Your task to perform on an android device: Show the shopping cart on target.com. Add "razer deathadder" to the cart on target.com Image 0: 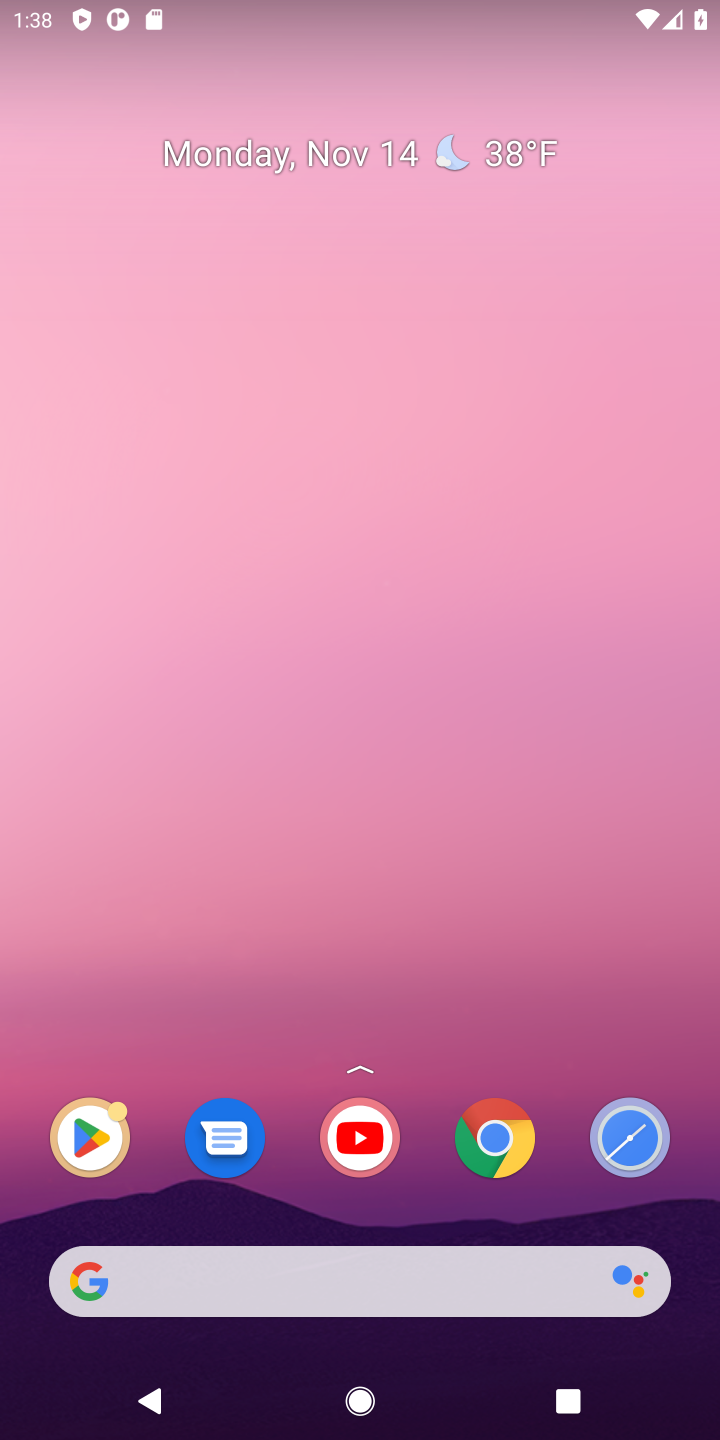
Step 0: click (513, 1136)
Your task to perform on an android device: Show the shopping cart on target.com. Add "razer deathadder" to the cart on target.com Image 1: 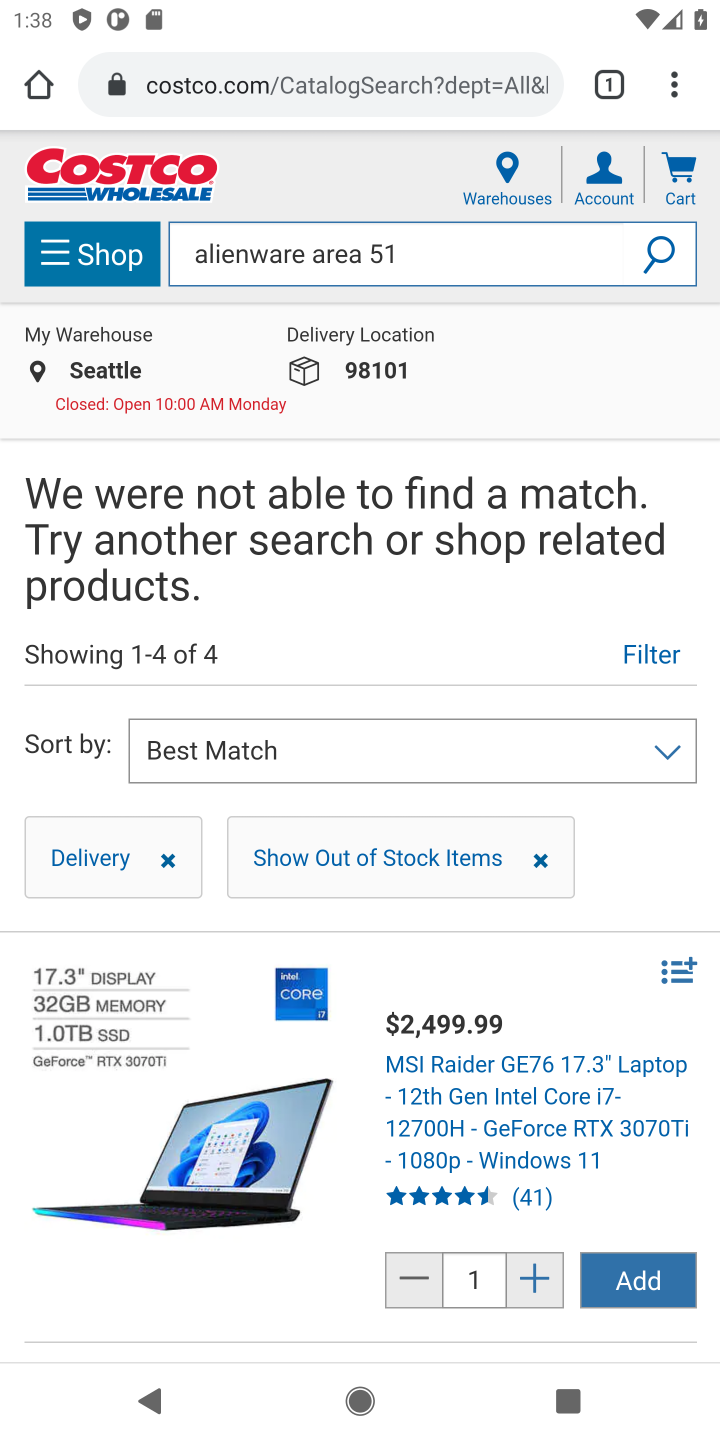
Step 1: click (332, 72)
Your task to perform on an android device: Show the shopping cart on target.com. Add "razer deathadder" to the cart on target.com Image 2: 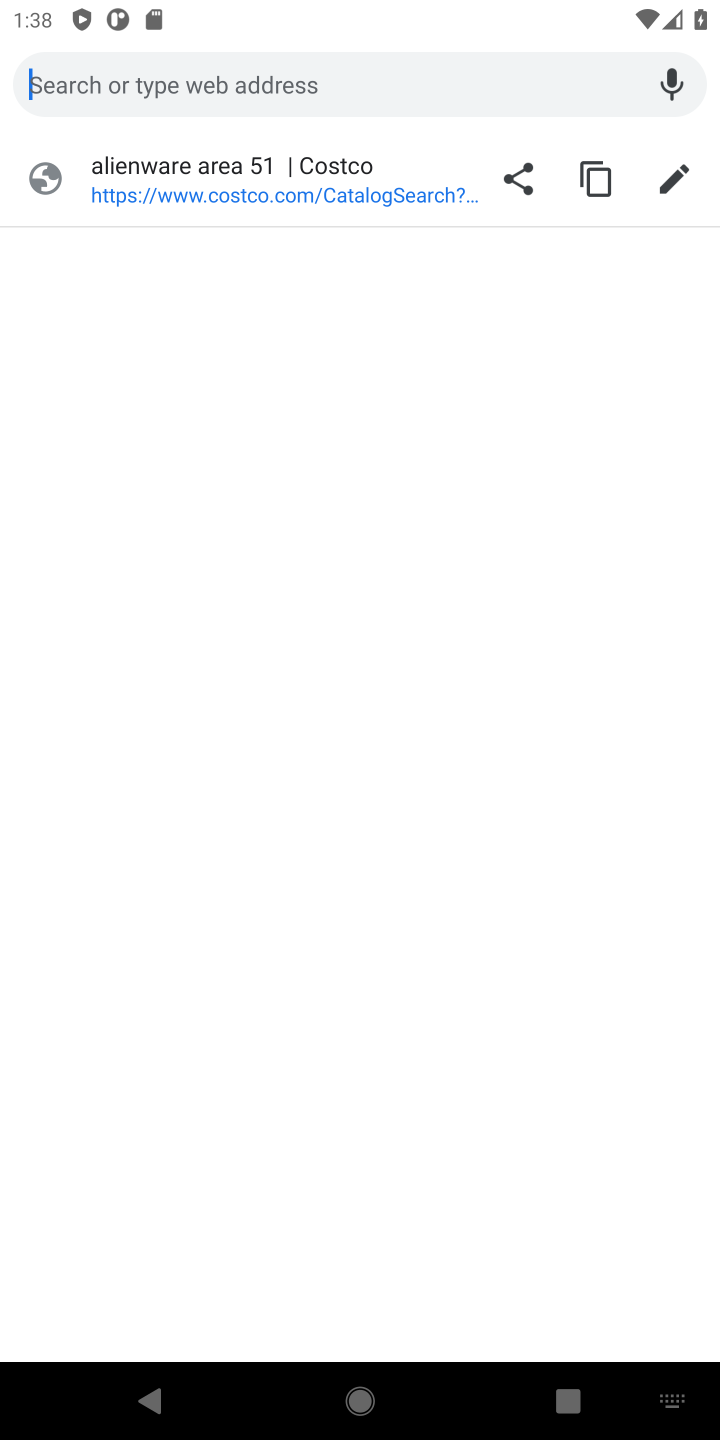
Step 2: press enter
Your task to perform on an android device: Show the shopping cart on target.com. Add "razer deathadder" to the cart on target.com Image 3: 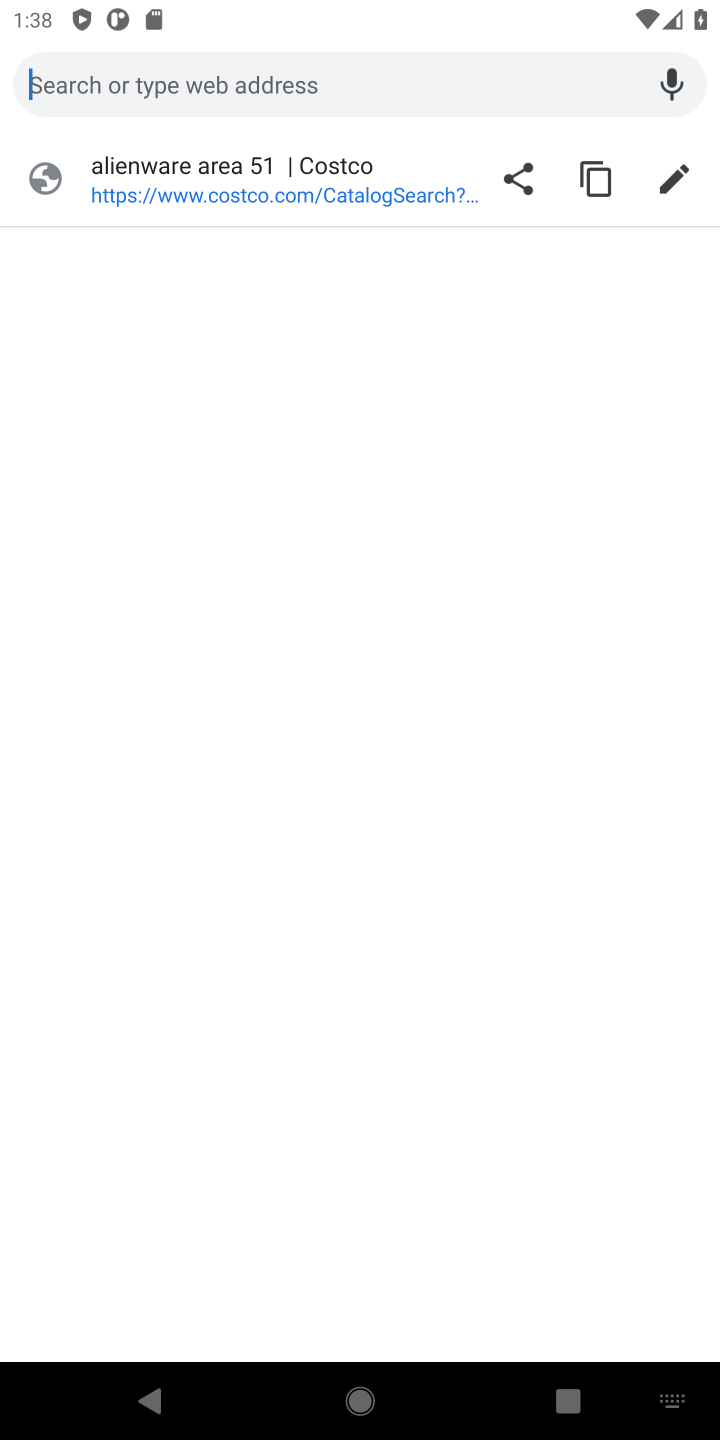
Step 3: type "target.com"
Your task to perform on an android device: Show the shopping cart on target.com. Add "razer deathadder" to the cart on target.com Image 4: 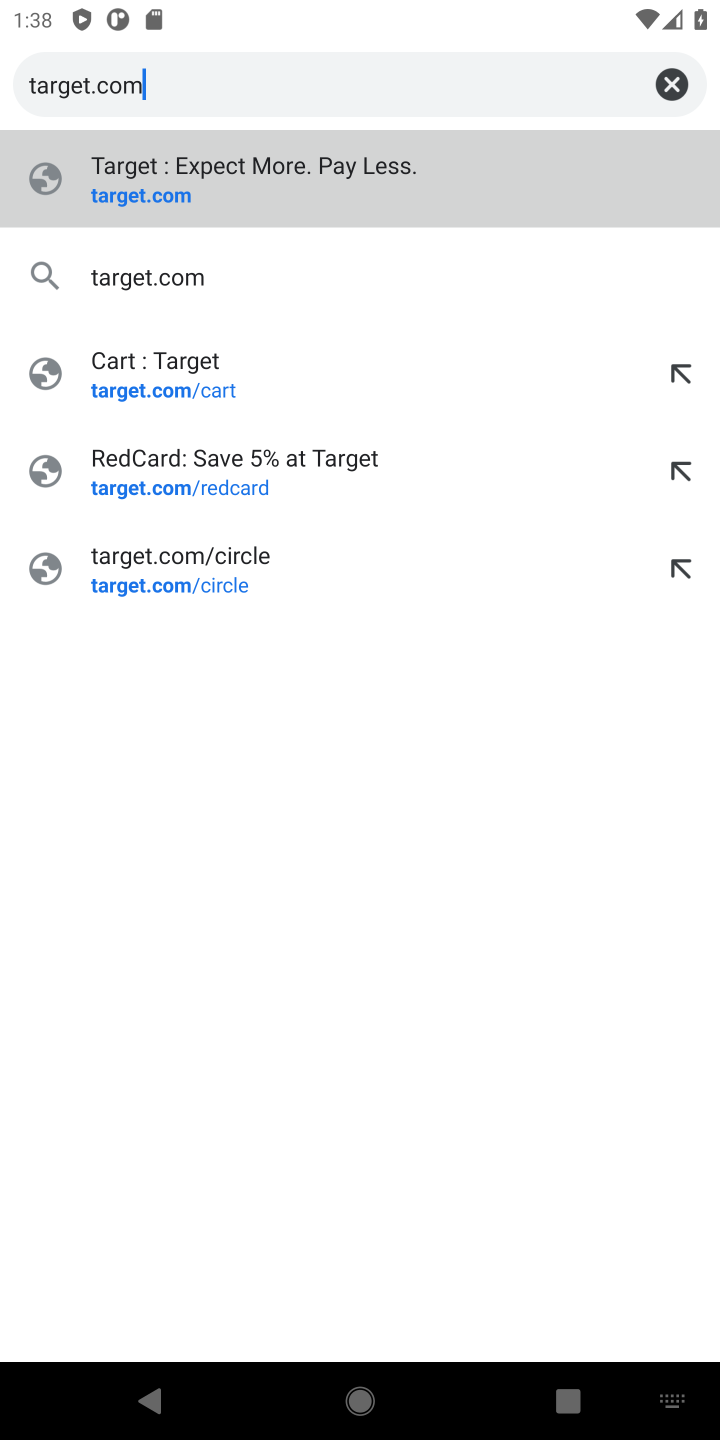
Step 4: click (174, 268)
Your task to perform on an android device: Show the shopping cart on target.com. Add "razer deathadder" to the cart on target.com Image 5: 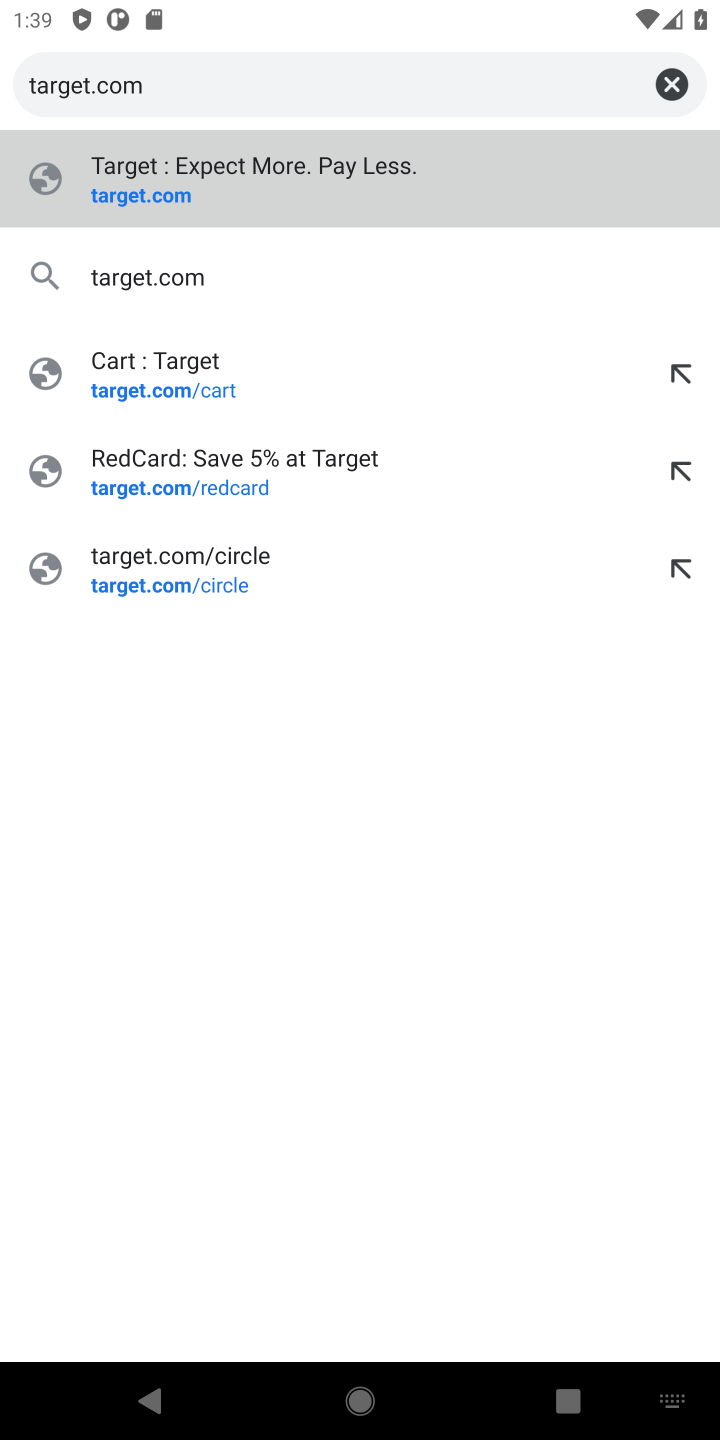
Step 5: click (173, 277)
Your task to perform on an android device: Show the shopping cart on target.com. Add "razer deathadder" to the cart on target.com Image 6: 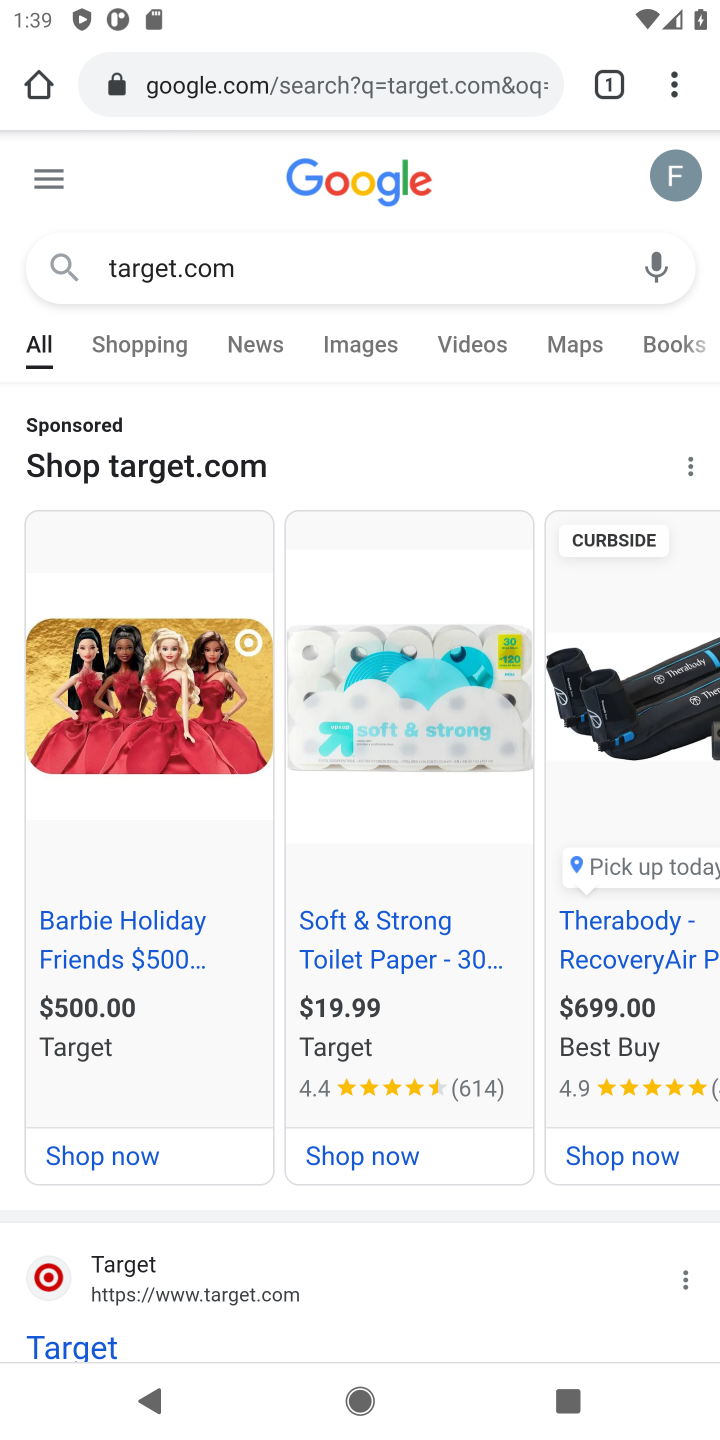
Step 6: click (242, 1290)
Your task to perform on an android device: Show the shopping cart on target.com. Add "razer deathadder" to the cart on target.com Image 7: 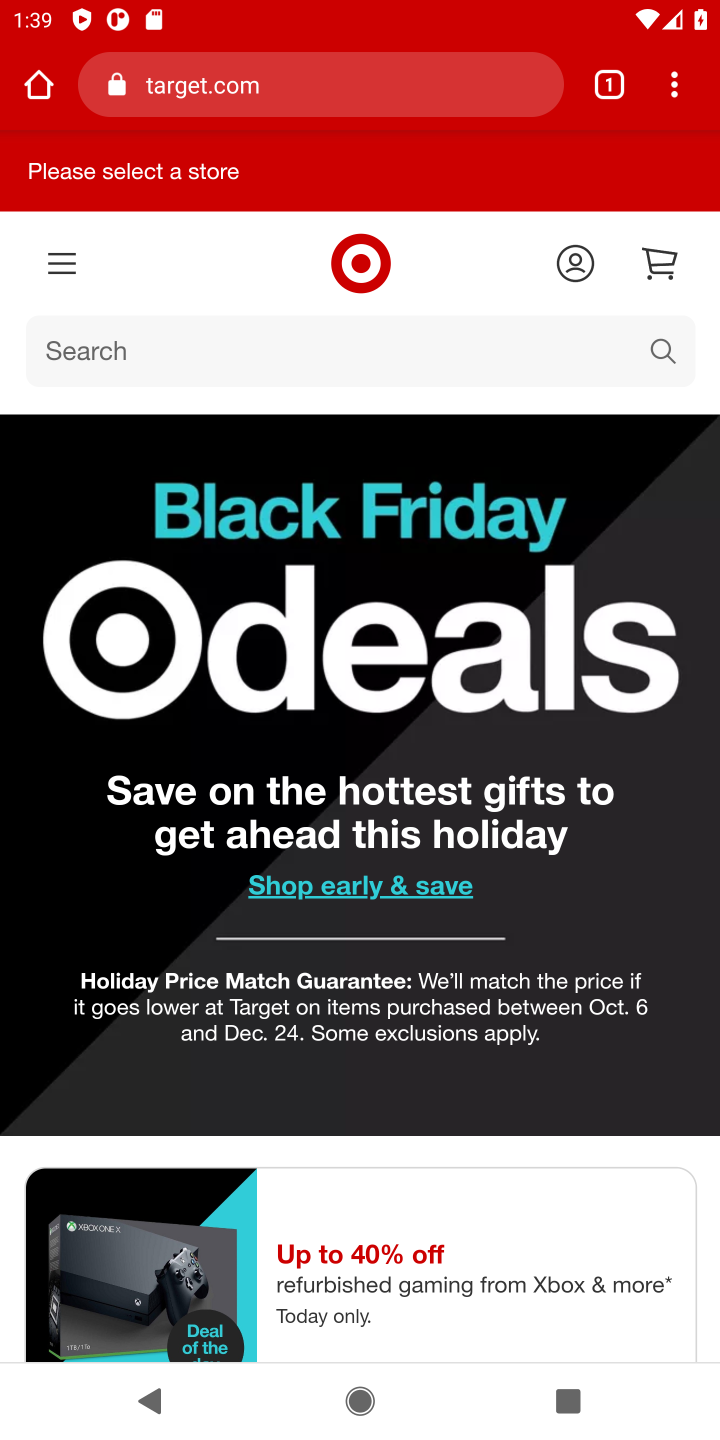
Step 7: click (656, 351)
Your task to perform on an android device: Show the shopping cart on target.com. Add "razer deathadder" to the cart on target.com Image 8: 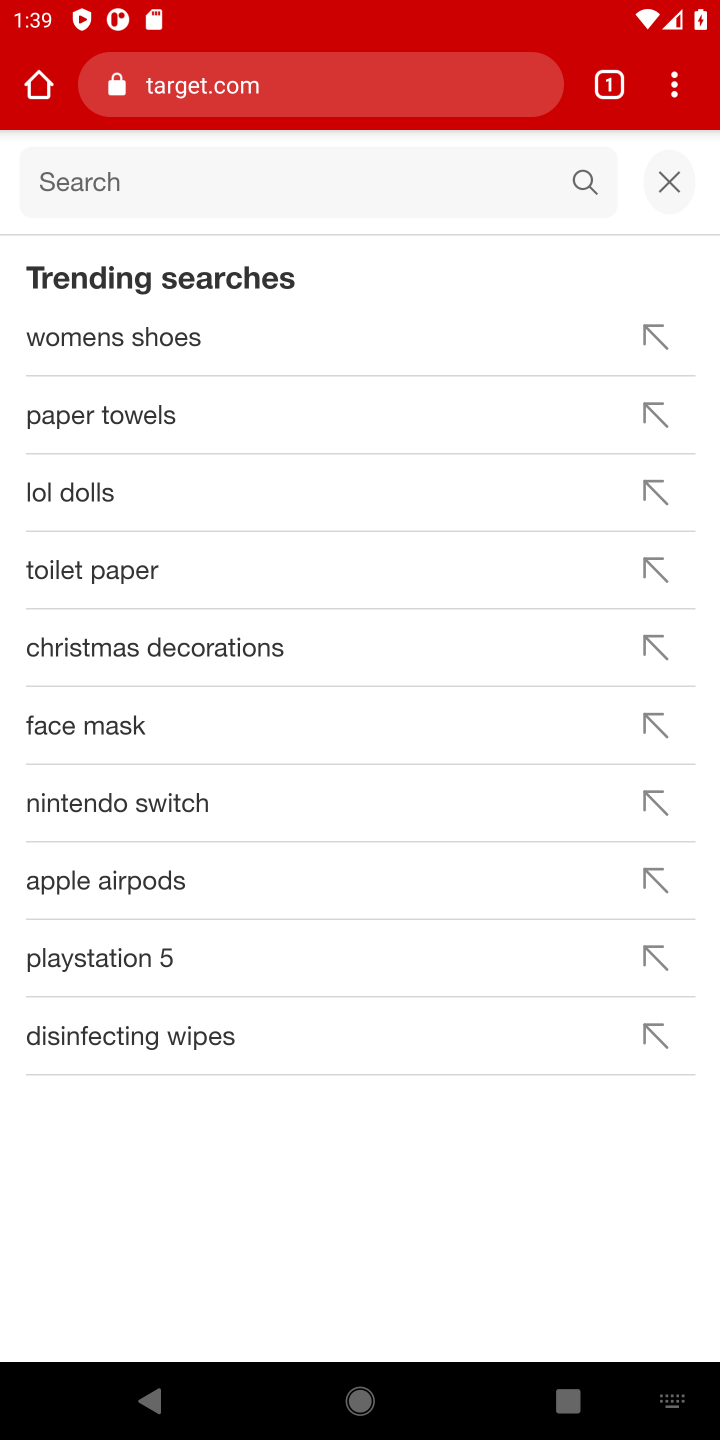
Step 8: press enter
Your task to perform on an android device: Show the shopping cart on target.com. Add "razer deathadder" to the cart on target.com Image 9: 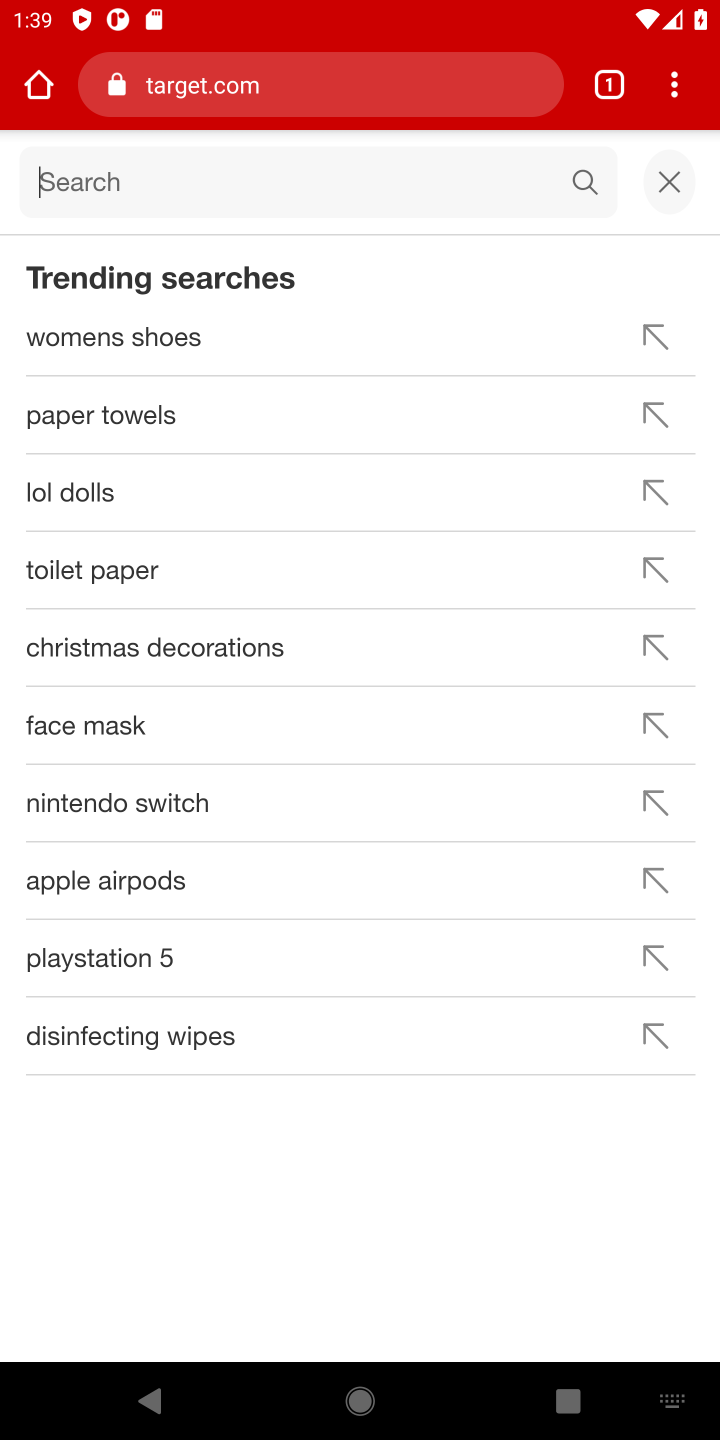
Step 9: type "razer deathadder"
Your task to perform on an android device: Show the shopping cart on target.com. Add "razer deathadder" to the cart on target.com Image 10: 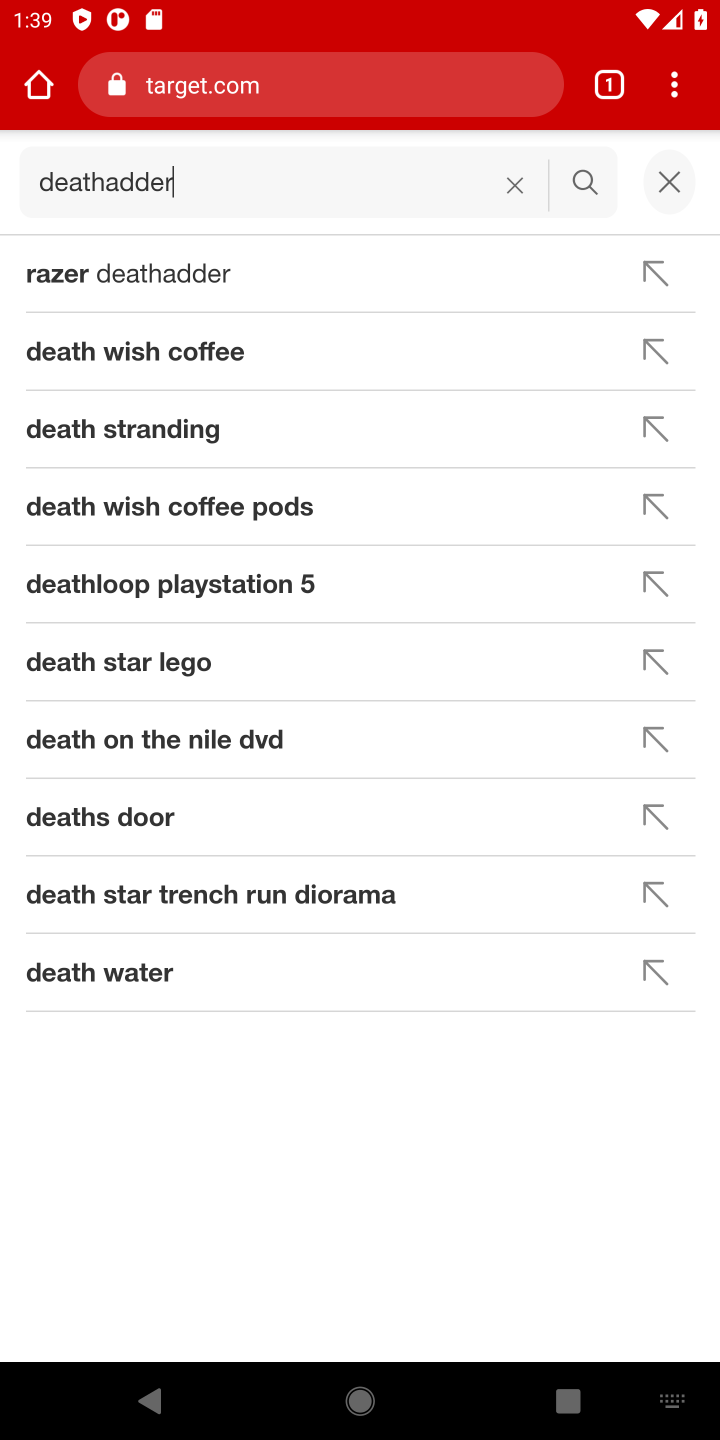
Step 10: click (190, 268)
Your task to perform on an android device: Show the shopping cart on target.com. Add "razer deathadder" to the cart on target.com Image 11: 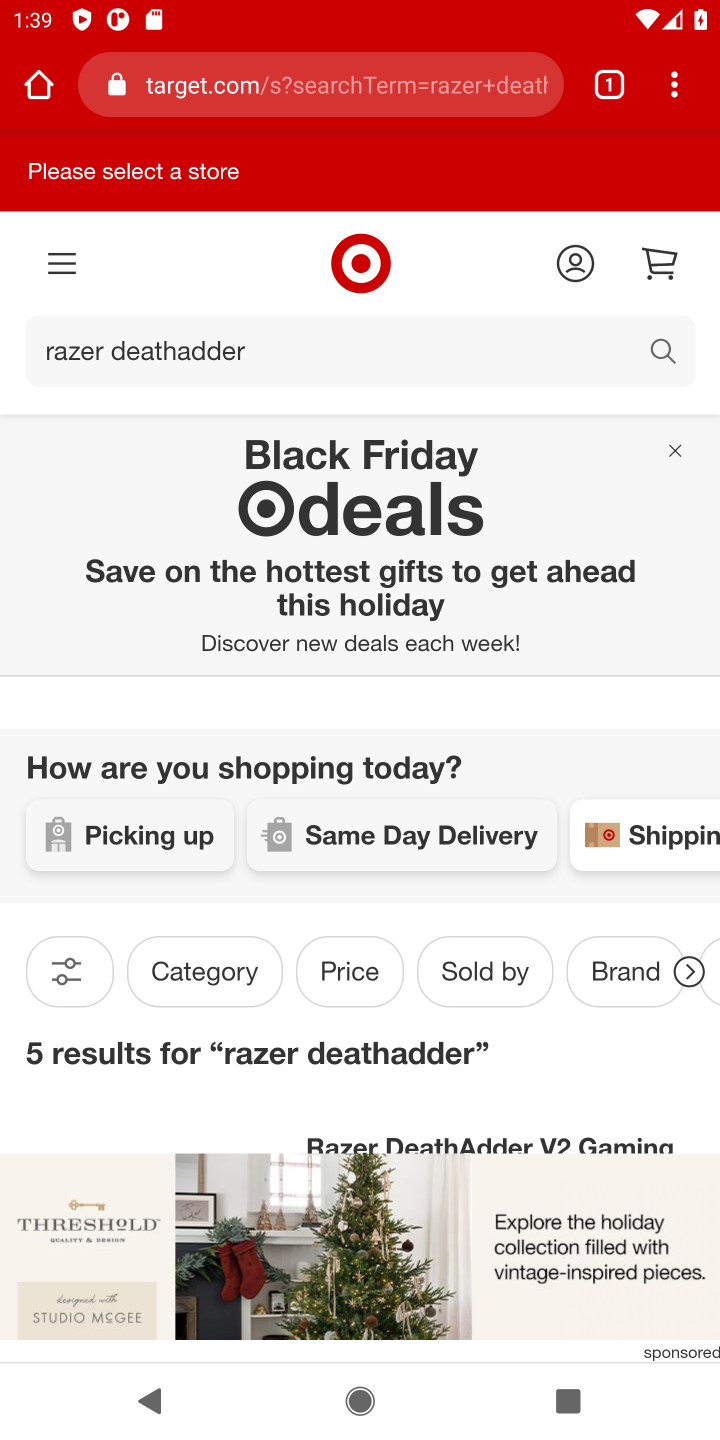
Step 11: drag from (452, 1163) to (454, 475)
Your task to perform on an android device: Show the shopping cart on target.com. Add "razer deathadder" to the cart on target.com Image 12: 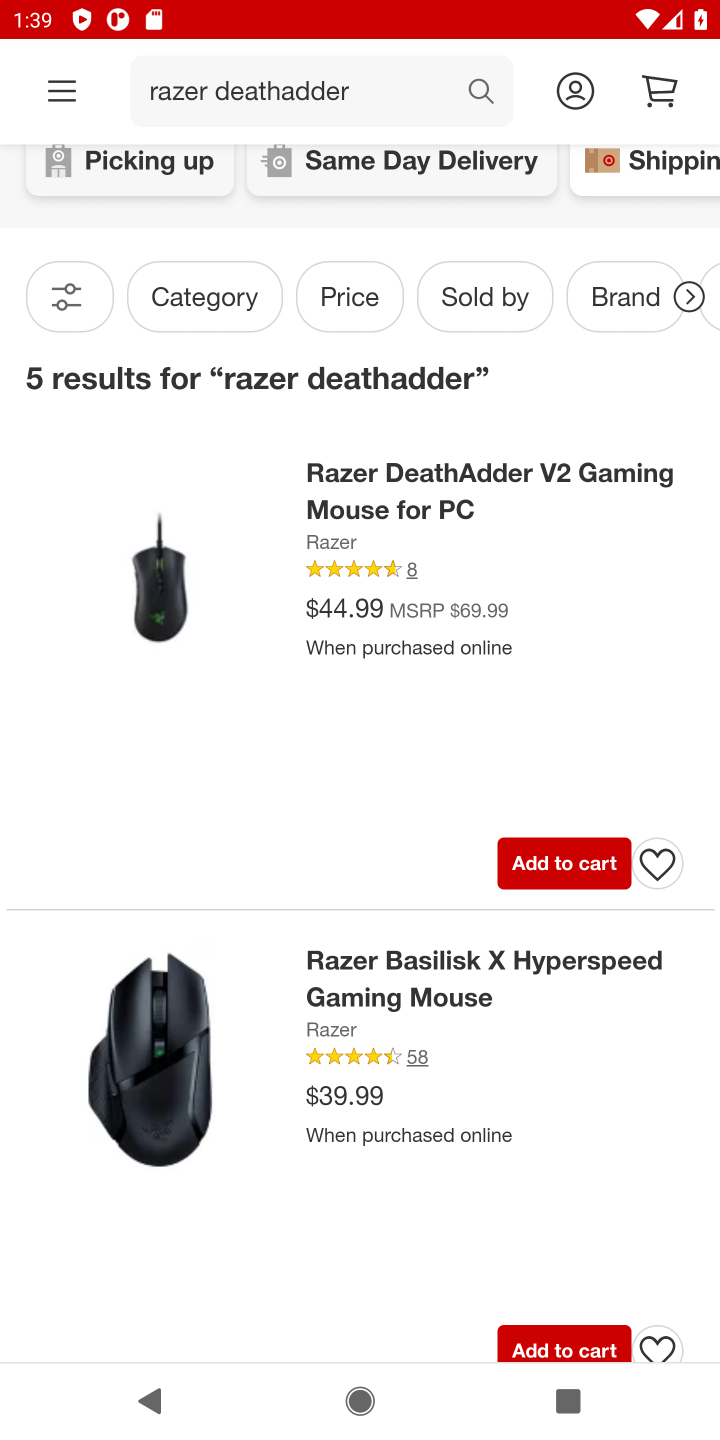
Step 12: click (93, 592)
Your task to perform on an android device: Show the shopping cart on target.com. Add "razer deathadder" to the cart on target.com Image 13: 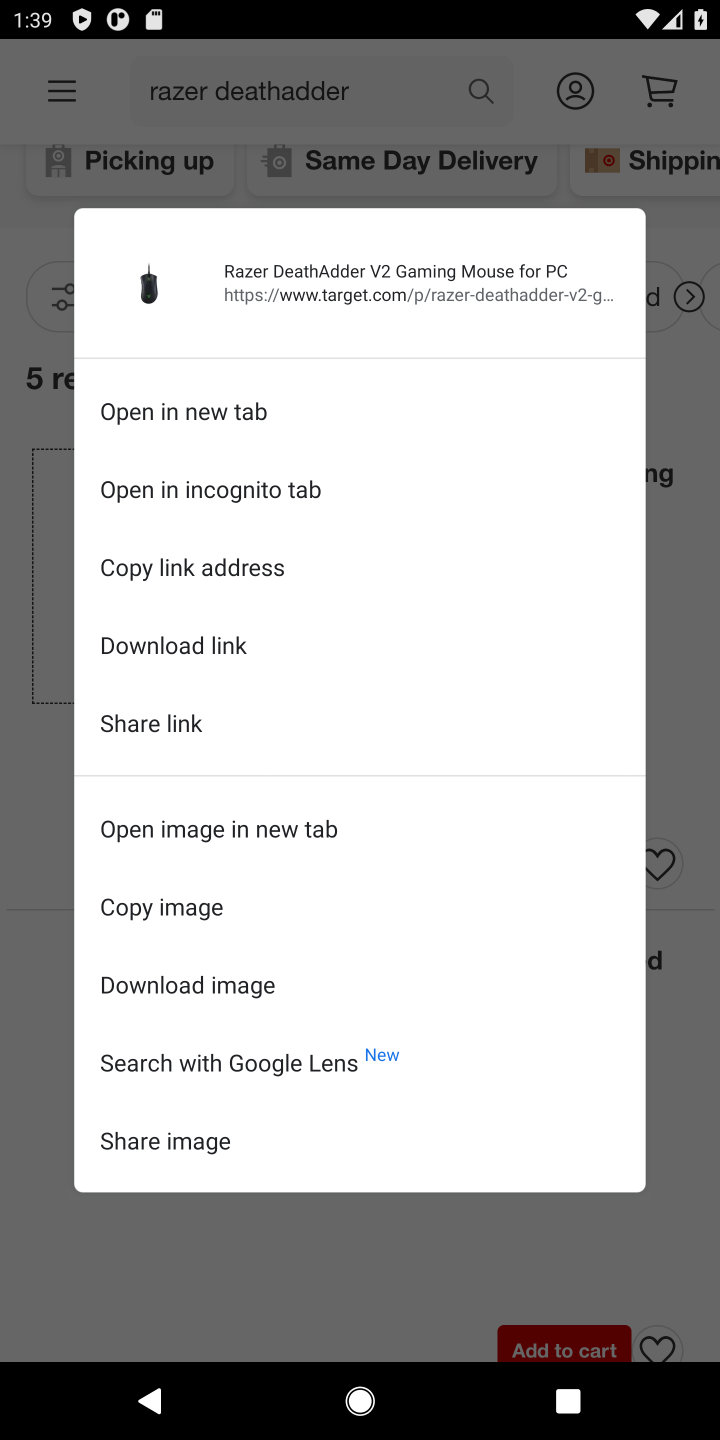
Step 13: click (688, 510)
Your task to perform on an android device: Show the shopping cart on target.com. Add "razer deathadder" to the cart on target.com Image 14: 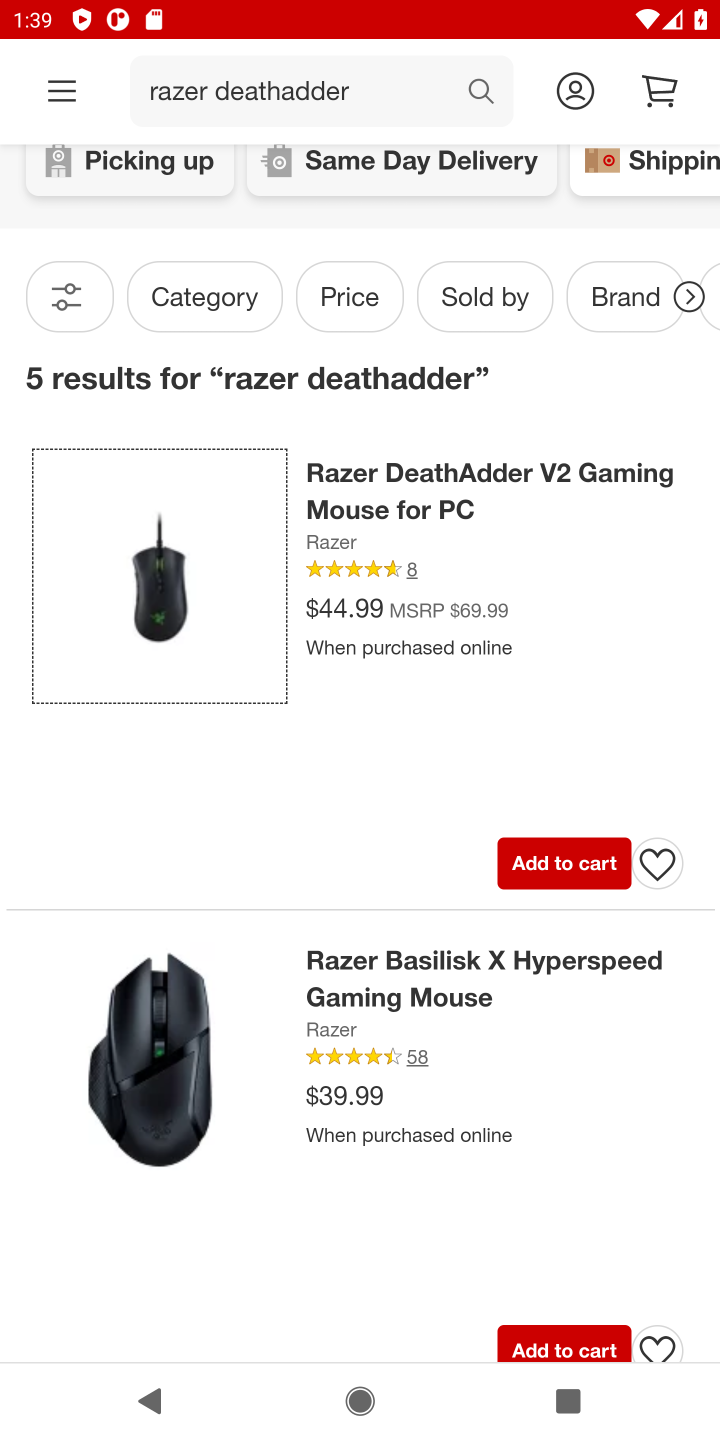
Step 14: click (141, 557)
Your task to perform on an android device: Show the shopping cart on target.com. Add "razer deathadder" to the cart on target.com Image 15: 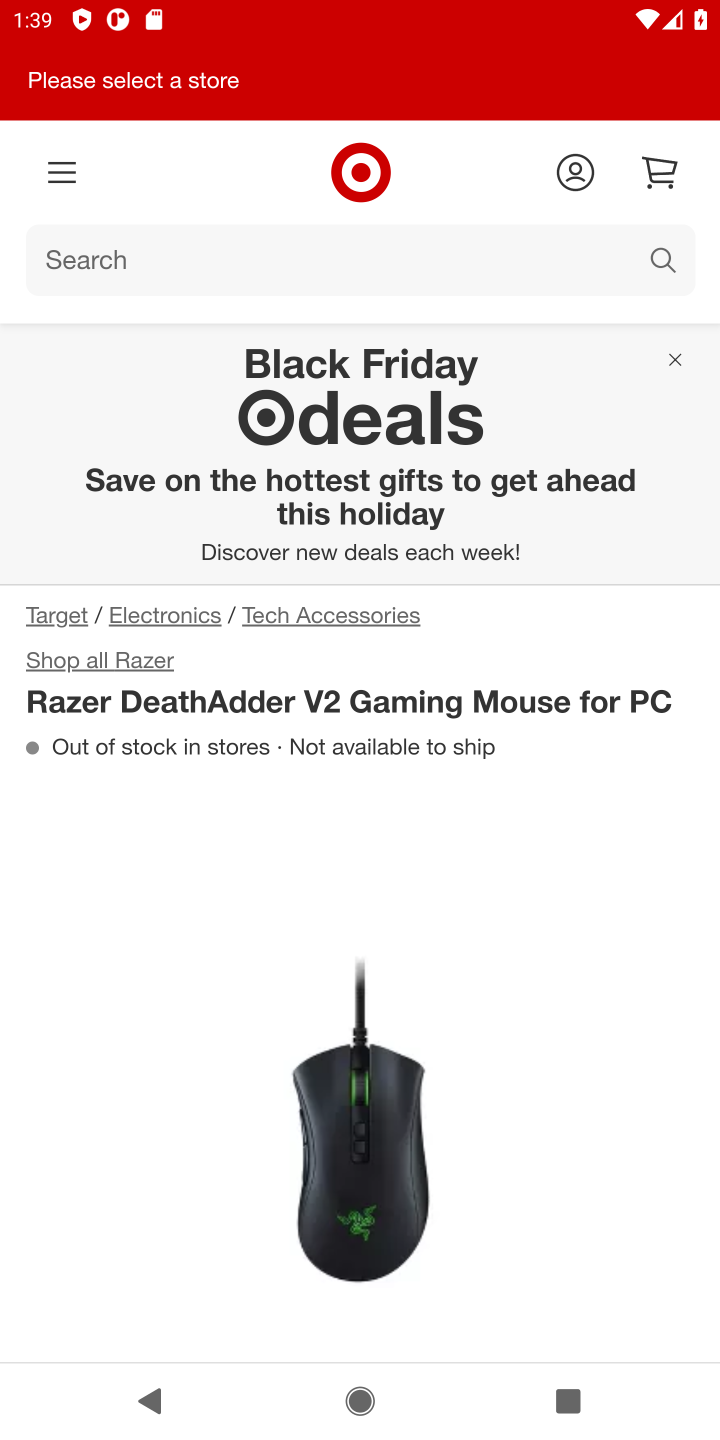
Step 15: drag from (535, 954) to (520, 351)
Your task to perform on an android device: Show the shopping cart on target.com. Add "razer deathadder" to the cart on target.com Image 16: 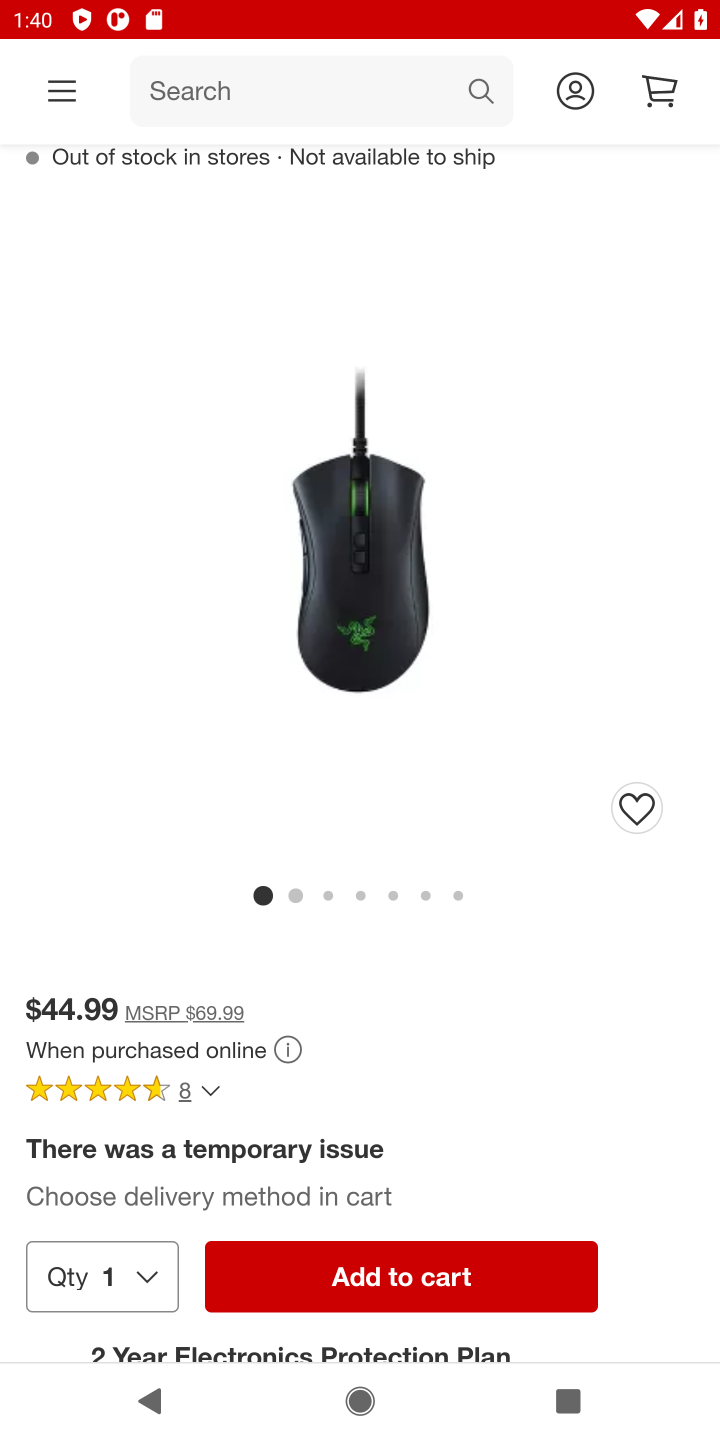
Step 16: click (512, 1272)
Your task to perform on an android device: Show the shopping cart on target.com. Add "razer deathadder" to the cart on target.com Image 17: 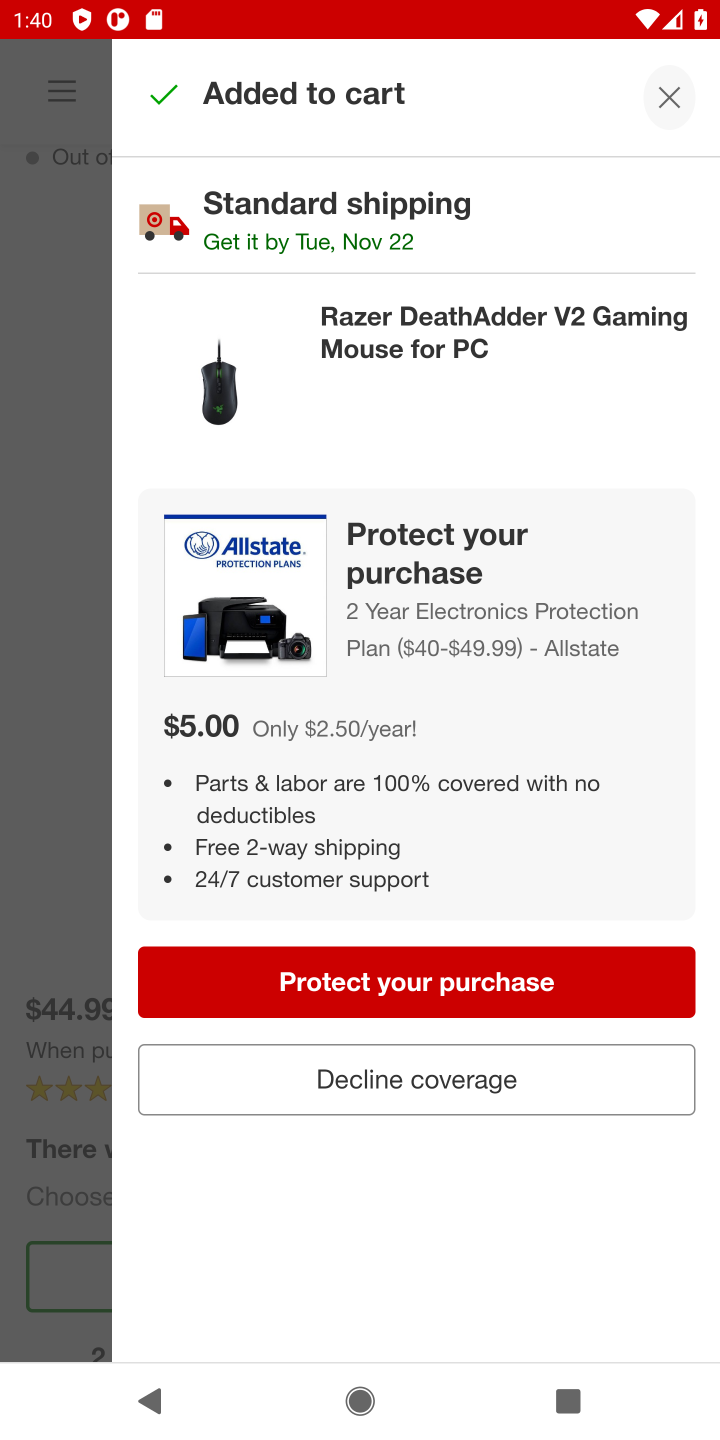
Step 17: click (665, 93)
Your task to perform on an android device: Show the shopping cart on target.com. Add "razer deathadder" to the cart on target.com Image 18: 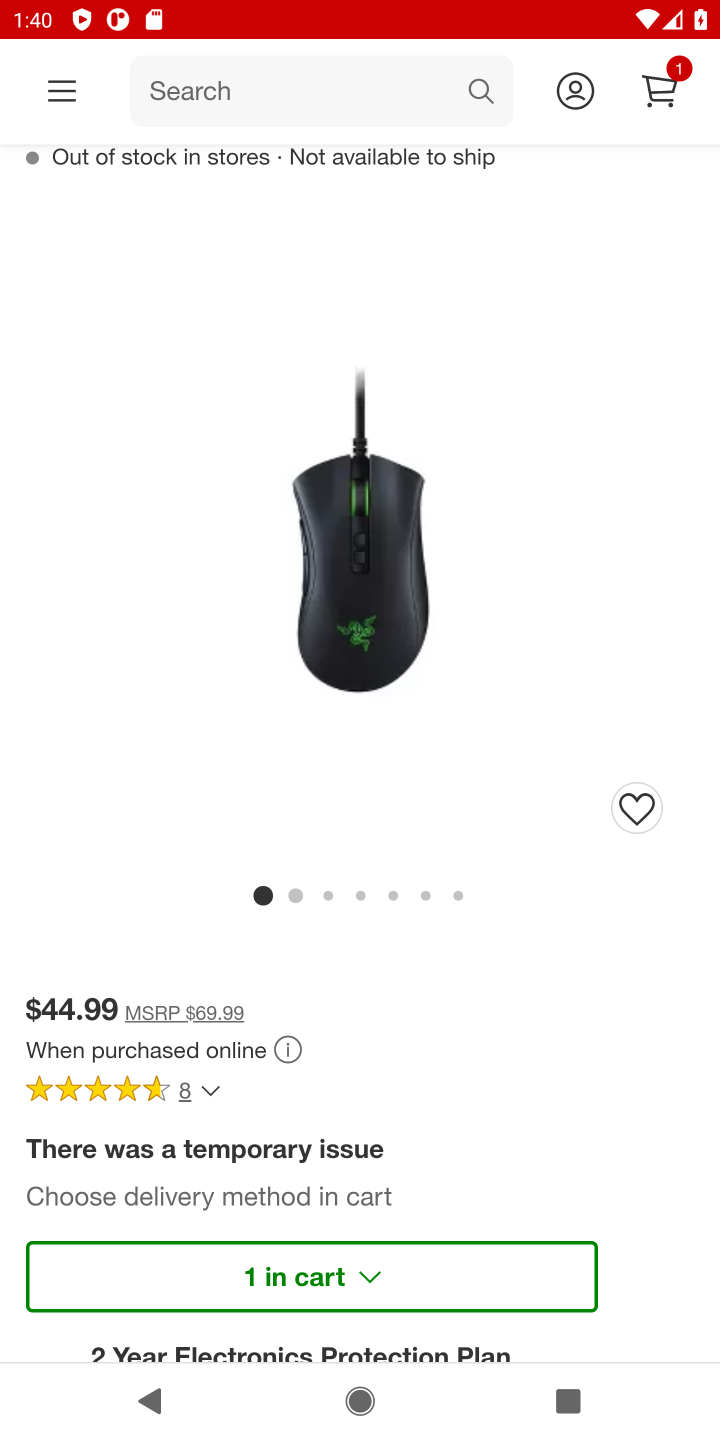
Step 18: task complete